Your task to perform on an android device: Show the shopping cart on target.com. Search for logitech g933 on target.com, select the first entry, and add it to the cart. Image 0: 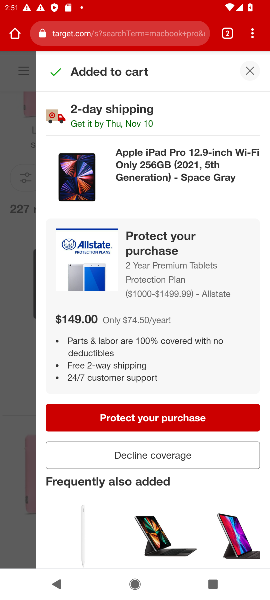
Step 0: press home button
Your task to perform on an android device: Show the shopping cart on target.com. Search for logitech g933 on target.com, select the first entry, and add it to the cart. Image 1: 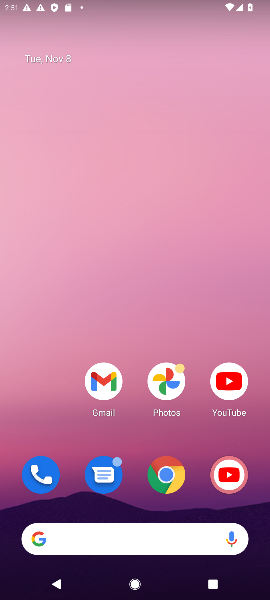
Step 1: drag from (86, 525) to (95, 75)
Your task to perform on an android device: Show the shopping cart on target.com. Search for logitech g933 on target.com, select the first entry, and add it to the cart. Image 2: 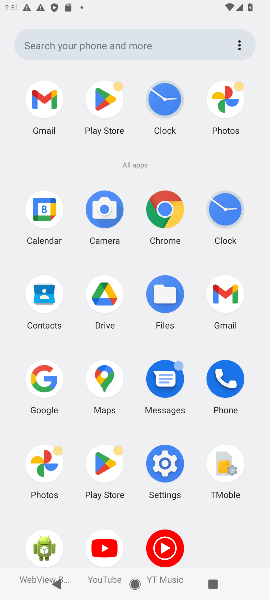
Step 2: click (38, 377)
Your task to perform on an android device: Show the shopping cart on target.com. Search for logitech g933 on target.com, select the first entry, and add it to the cart. Image 3: 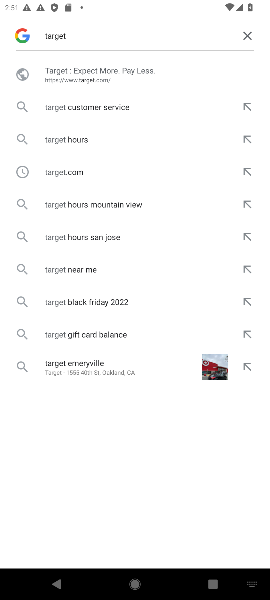
Step 3: click (254, 33)
Your task to perform on an android device: Show the shopping cart on target.com. Search for logitech g933 on target.com, select the first entry, and add it to the cart. Image 4: 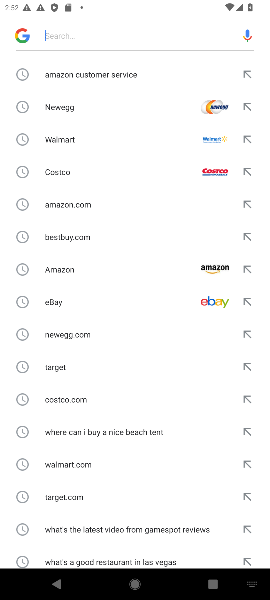
Step 4: click (88, 31)
Your task to perform on an android device: Show the shopping cart on target.com. Search for logitech g933 on target.com, select the first entry, and add it to the cart. Image 5: 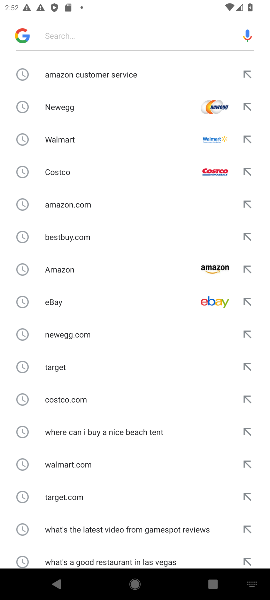
Step 5: type "target "
Your task to perform on an android device: Show the shopping cart on target.com. Search for logitech g933 on target.com, select the first entry, and add it to the cart. Image 6: 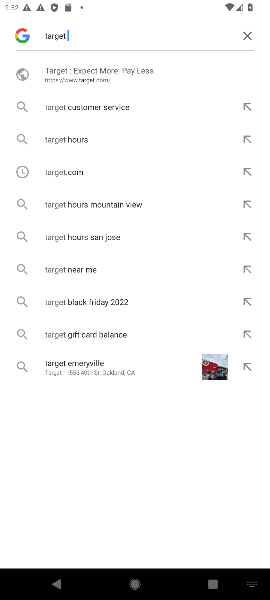
Step 6: click (95, 74)
Your task to perform on an android device: Show the shopping cart on target.com. Search for logitech g933 on target.com, select the first entry, and add it to the cart. Image 7: 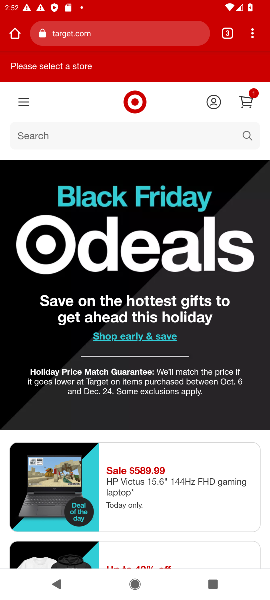
Step 7: click (64, 133)
Your task to perform on an android device: Show the shopping cart on target.com. Search for logitech g933 on target.com, select the first entry, and add it to the cart. Image 8: 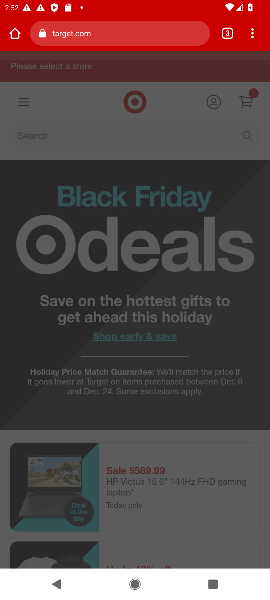
Step 8: click (64, 133)
Your task to perform on an android device: Show the shopping cart on target.com. Search for logitech g933 on target.com, select the first entry, and add it to the cart. Image 9: 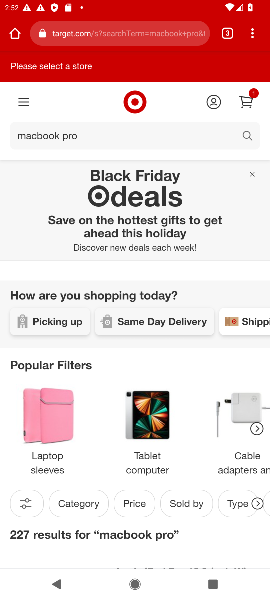
Step 9: type "logitech g933 "
Your task to perform on an android device: Show the shopping cart on target.com. Search for logitech g933 on target.com, select the first entry, and add it to the cart. Image 10: 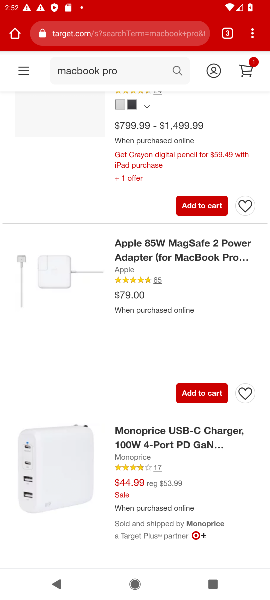
Step 10: drag from (133, 176) to (111, 451)
Your task to perform on an android device: Show the shopping cart on target.com. Search for logitech g933 on target.com, select the first entry, and add it to the cart. Image 11: 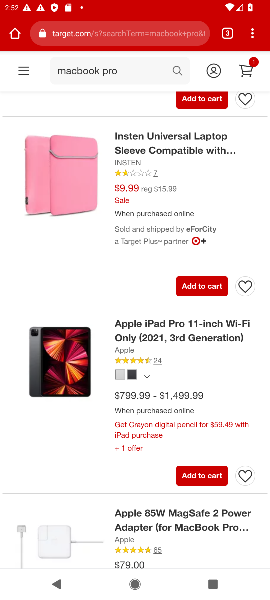
Step 11: click (133, 65)
Your task to perform on an android device: Show the shopping cart on target.com. Search for logitech g933 on target.com, select the first entry, and add it to the cart. Image 12: 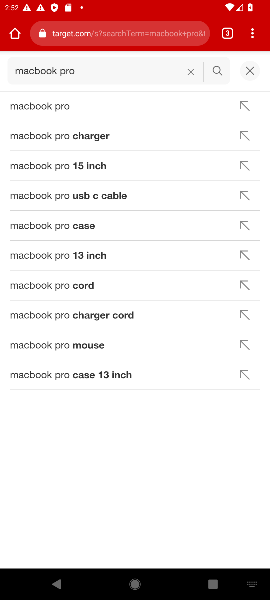
Step 12: click (247, 71)
Your task to perform on an android device: Show the shopping cart on target.com. Search for logitech g933 on target.com, select the first entry, and add it to the cart. Image 13: 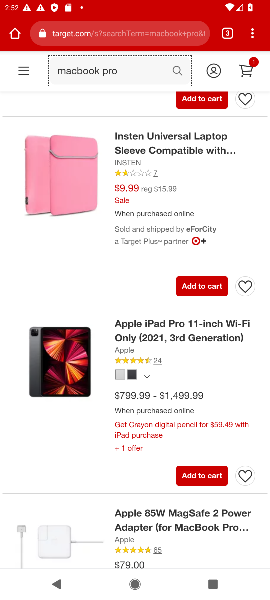
Step 13: click (194, 75)
Your task to perform on an android device: Show the shopping cart on target.com. Search for logitech g933 on target.com, select the first entry, and add it to the cart. Image 14: 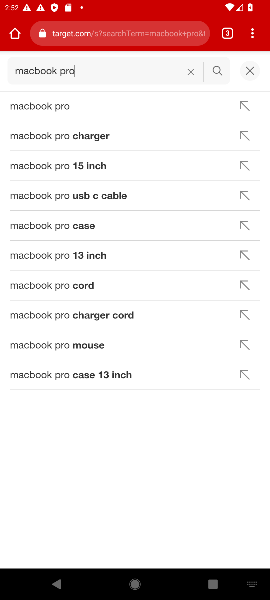
Step 14: click (188, 64)
Your task to perform on an android device: Show the shopping cart on target.com. Search for logitech g933 on target.com, select the first entry, and add it to the cart. Image 15: 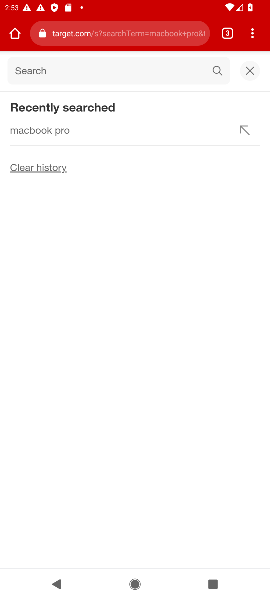
Step 15: click (77, 65)
Your task to perform on an android device: Show the shopping cart on target.com. Search for logitech g933 on target.com, select the first entry, and add it to the cart. Image 16: 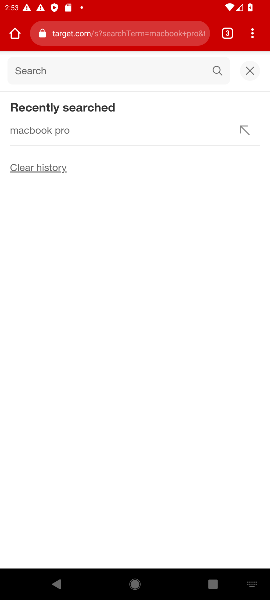
Step 16: type "logitech g933  "
Your task to perform on an android device: Show the shopping cart on target.com. Search for logitech g933 on target.com, select the first entry, and add it to the cart. Image 17: 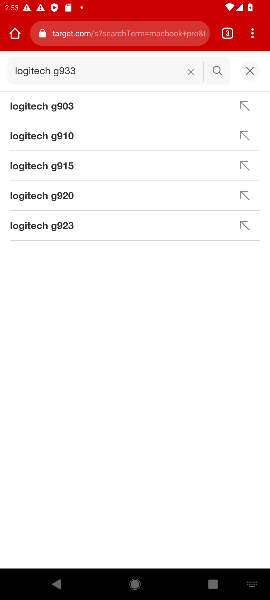
Step 17: click (46, 106)
Your task to perform on an android device: Show the shopping cart on target.com. Search for logitech g933 on target.com, select the first entry, and add it to the cart. Image 18: 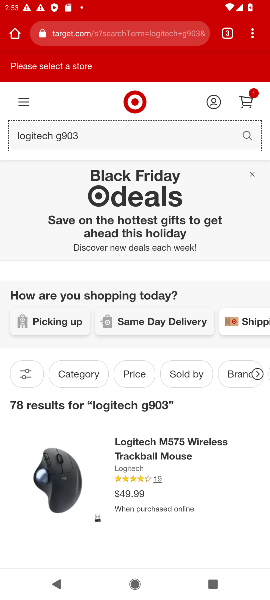
Step 18: click (174, 455)
Your task to perform on an android device: Show the shopping cart on target.com. Search for logitech g933 on target.com, select the first entry, and add it to the cart. Image 19: 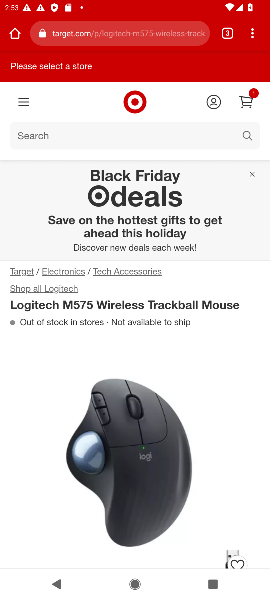
Step 19: drag from (146, 496) to (207, 163)
Your task to perform on an android device: Show the shopping cart on target.com. Search for logitech g933 on target.com, select the first entry, and add it to the cart. Image 20: 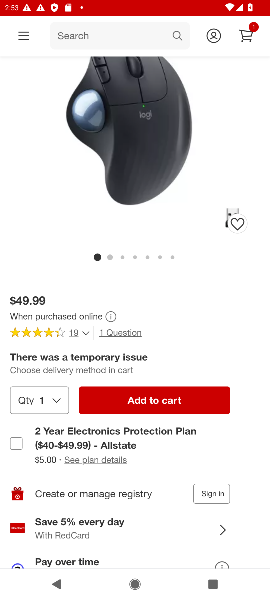
Step 20: click (142, 398)
Your task to perform on an android device: Show the shopping cart on target.com. Search for logitech g933 on target.com, select the first entry, and add it to the cart. Image 21: 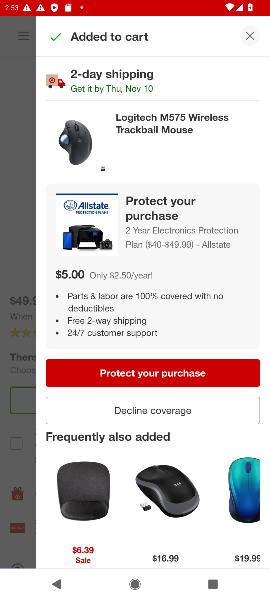
Step 21: task complete